Your task to perform on an android device: turn pop-ups on in chrome Image 0: 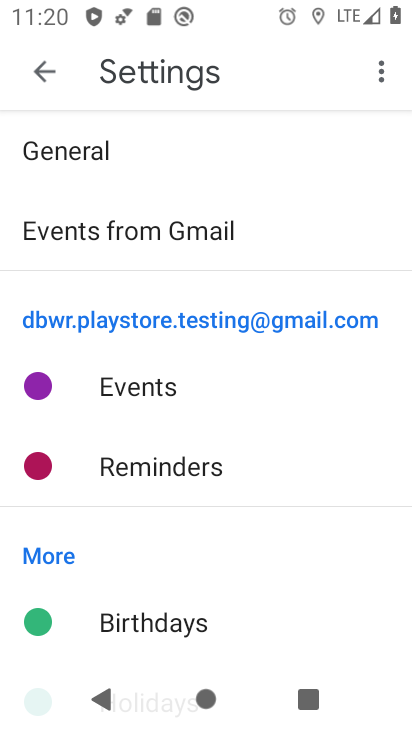
Step 0: press home button
Your task to perform on an android device: turn pop-ups on in chrome Image 1: 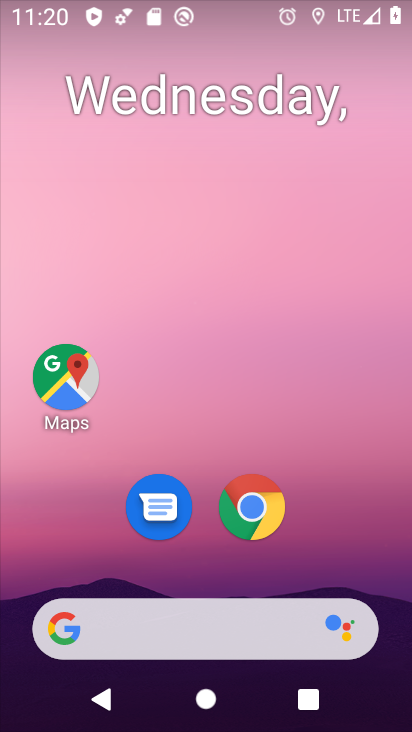
Step 1: drag from (348, 537) to (359, 98)
Your task to perform on an android device: turn pop-ups on in chrome Image 2: 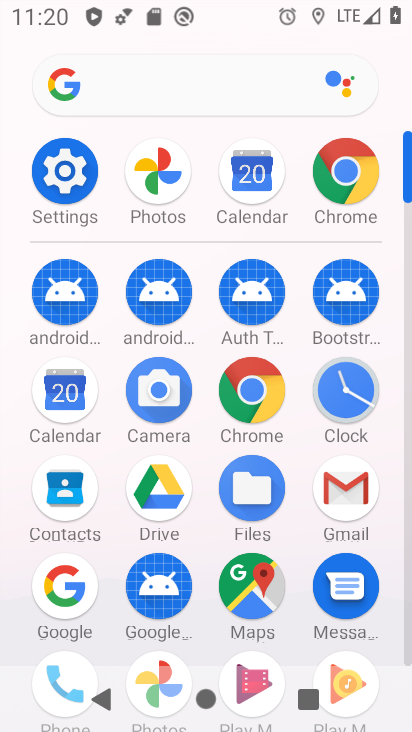
Step 2: click (230, 396)
Your task to perform on an android device: turn pop-ups on in chrome Image 3: 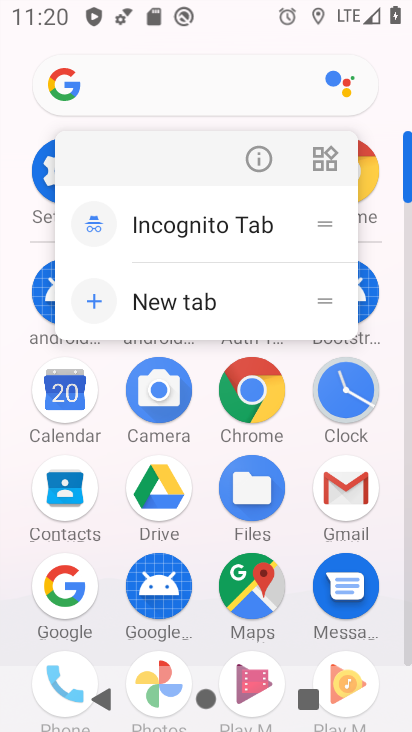
Step 3: click (250, 398)
Your task to perform on an android device: turn pop-ups on in chrome Image 4: 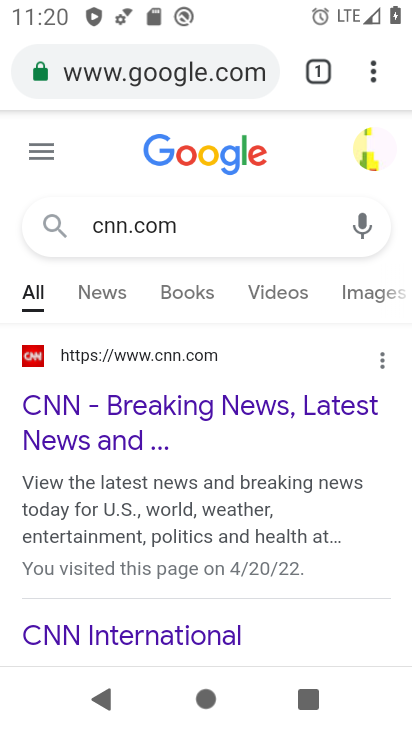
Step 4: click (374, 69)
Your task to perform on an android device: turn pop-ups on in chrome Image 5: 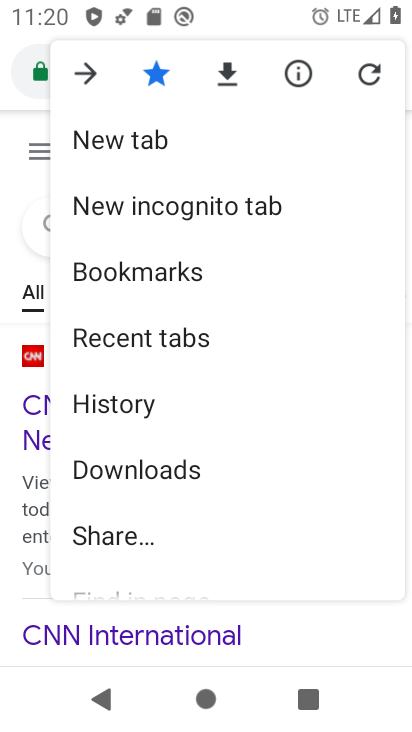
Step 5: drag from (307, 509) to (330, 275)
Your task to perform on an android device: turn pop-ups on in chrome Image 6: 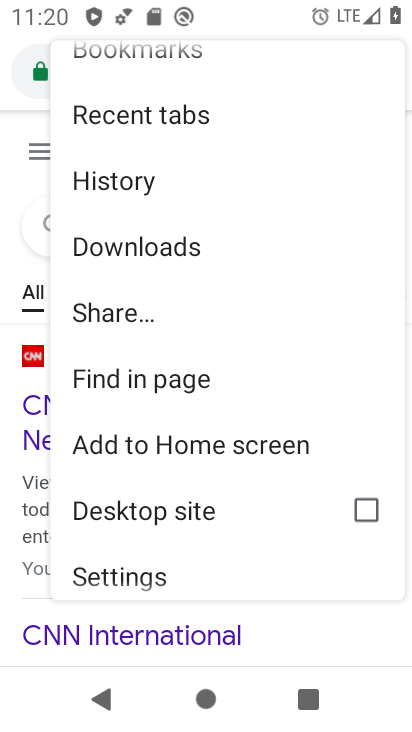
Step 6: drag from (286, 505) to (305, 305)
Your task to perform on an android device: turn pop-ups on in chrome Image 7: 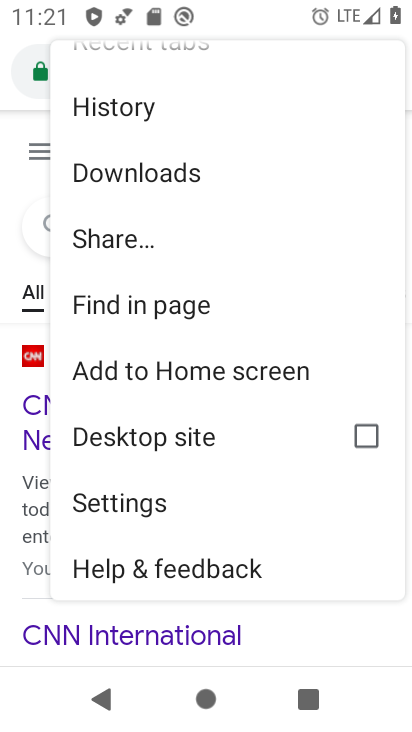
Step 7: click (152, 502)
Your task to perform on an android device: turn pop-ups on in chrome Image 8: 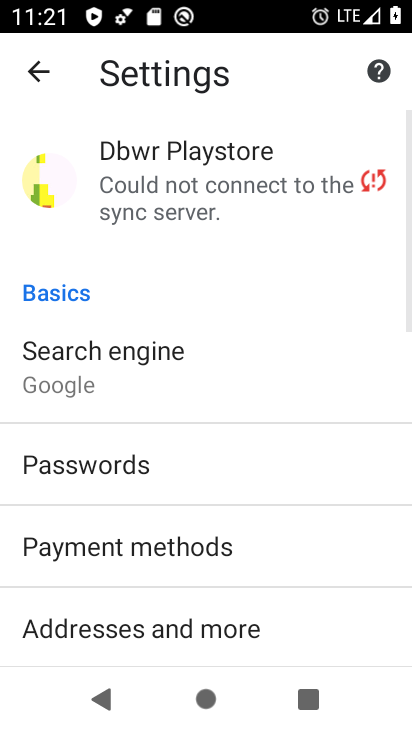
Step 8: drag from (331, 588) to (306, 381)
Your task to perform on an android device: turn pop-ups on in chrome Image 9: 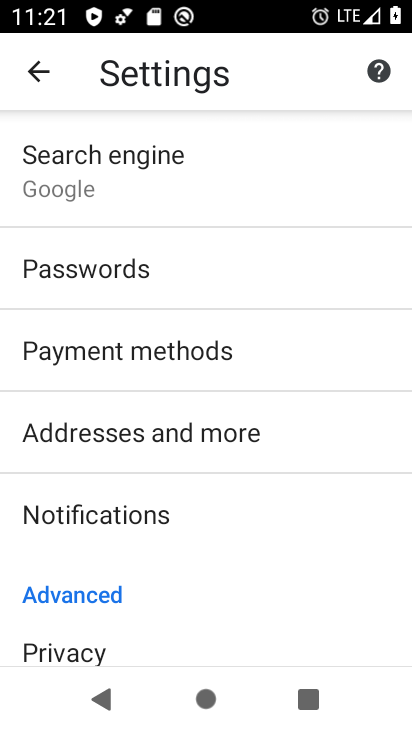
Step 9: drag from (314, 536) to (323, 387)
Your task to perform on an android device: turn pop-ups on in chrome Image 10: 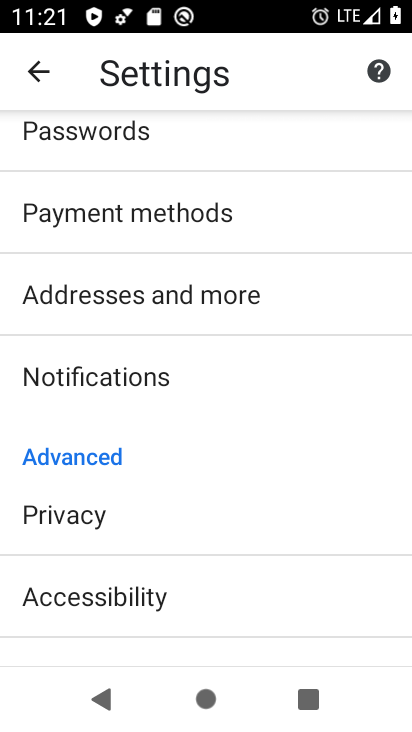
Step 10: drag from (331, 562) to (335, 377)
Your task to perform on an android device: turn pop-ups on in chrome Image 11: 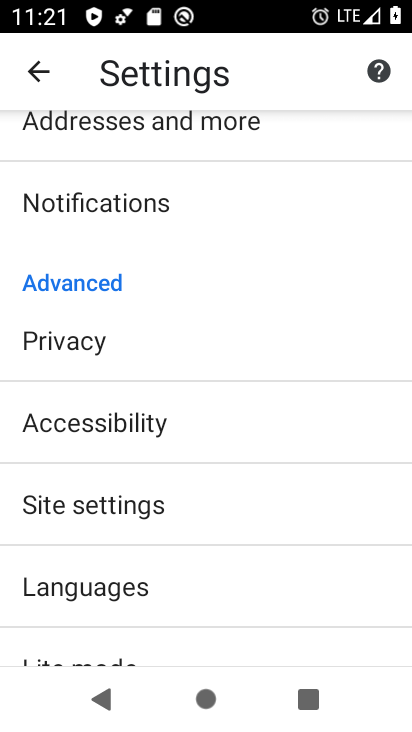
Step 11: drag from (312, 579) to (328, 376)
Your task to perform on an android device: turn pop-ups on in chrome Image 12: 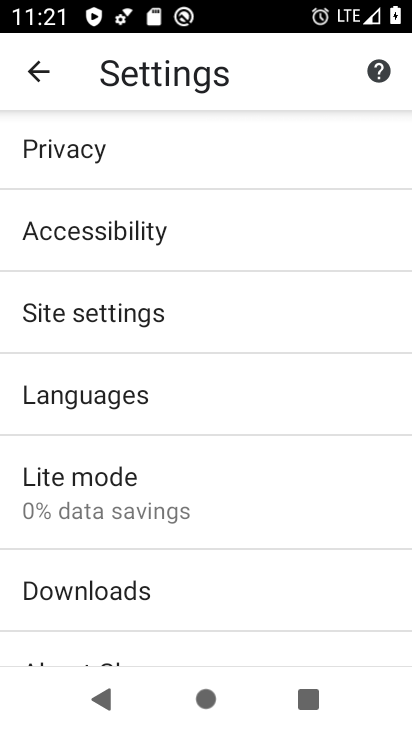
Step 12: drag from (316, 587) to (356, 425)
Your task to perform on an android device: turn pop-ups on in chrome Image 13: 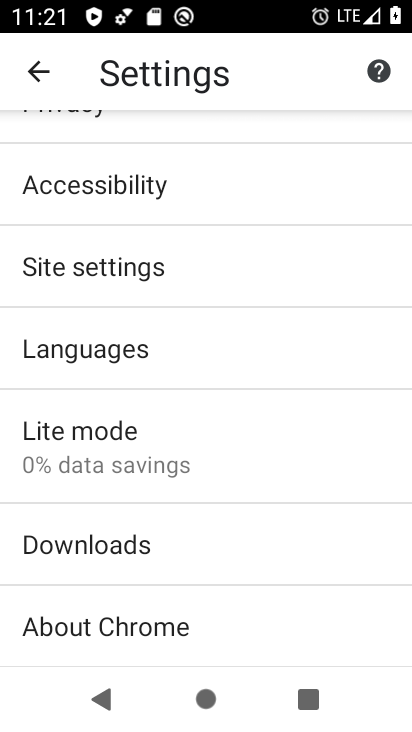
Step 13: click (201, 250)
Your task to perform on an android device: turn pop-ups on in chrome Image 14: 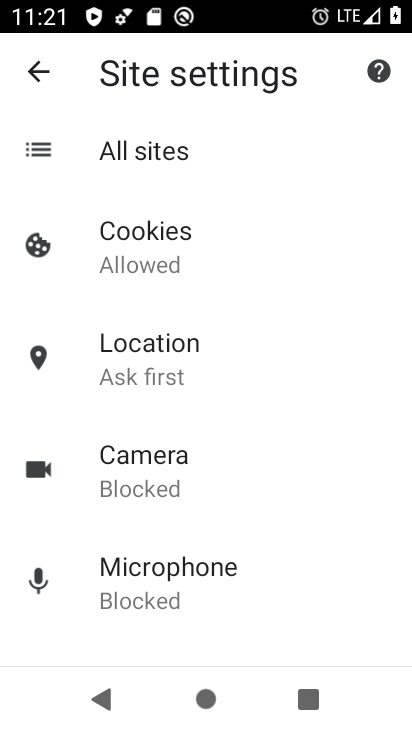
Step 14: drag from (334, 433) to (334, 326)
Your task to perform on an android device: turn pop-ups on in chrome Image 15: 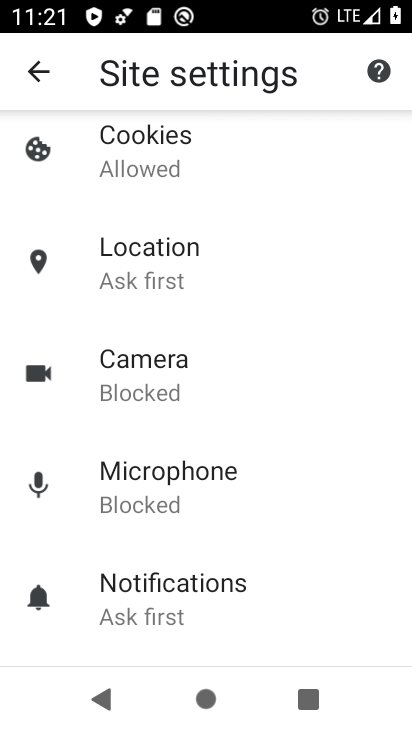
Step 15: drag from (320, 539) to (319, 343)
Your task to perform on an android device: turn pop-ups on in chrome Image 16: 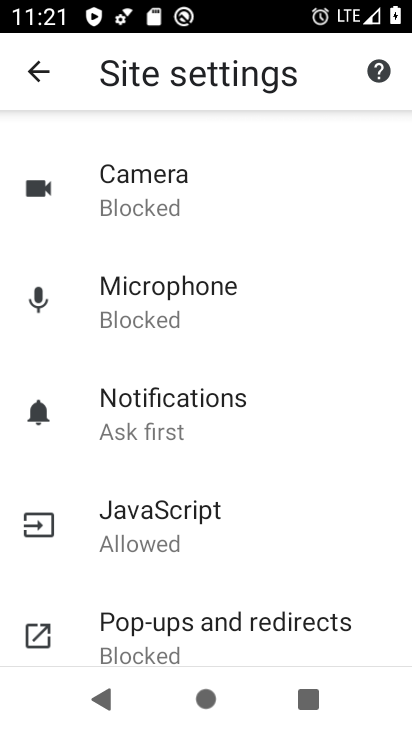
Step 16: drag from (340, 503) to (341, 349)
Your task to perform on an android device: turn pop-ups on in chrome Image 17: 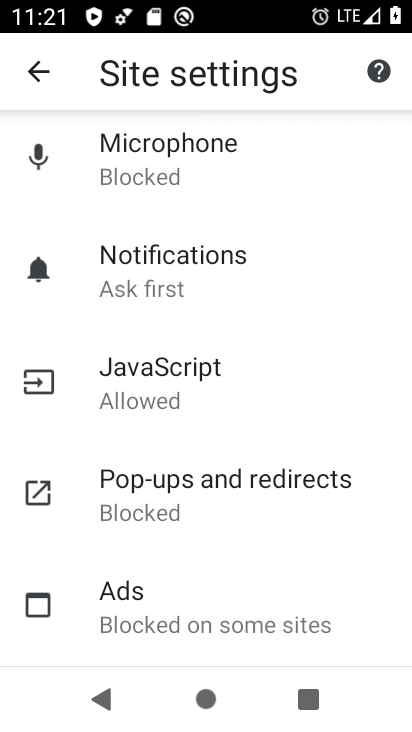
Step 17: drag from (349, 545) to (362, 337)
Your task to perform on an android device: turn pop-ups on in chrome Image 18: 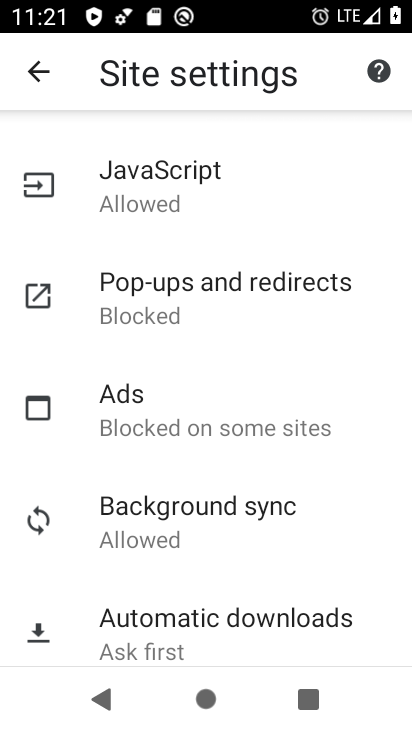
Step 18: click (212, 299)
Your task to perform on an android device: turn pop-ups on in chrome Image 19: 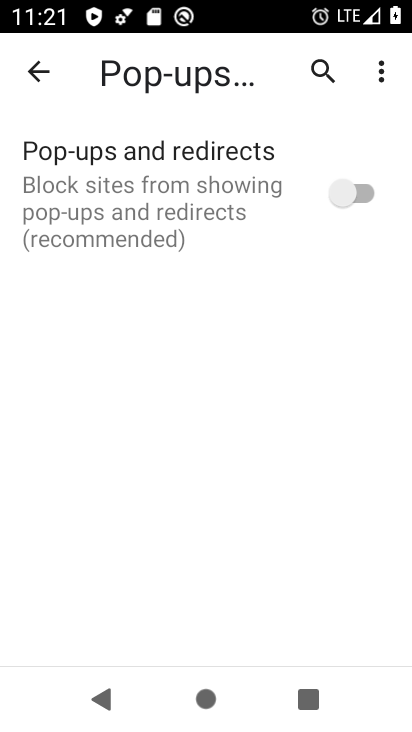
Step 19: click (366, 196)
Your task to perform on an android device: turn pop-ups on in chrome Image 20: 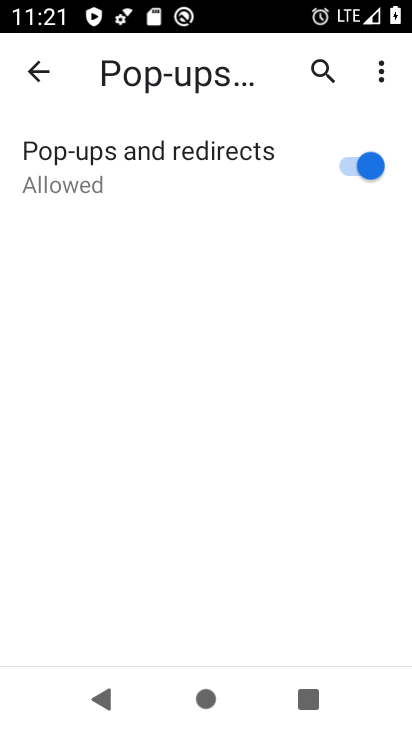
Step 20: task complete